Your task to perform on an android device: Search for vegetarian restaurants on Maps Image 0: 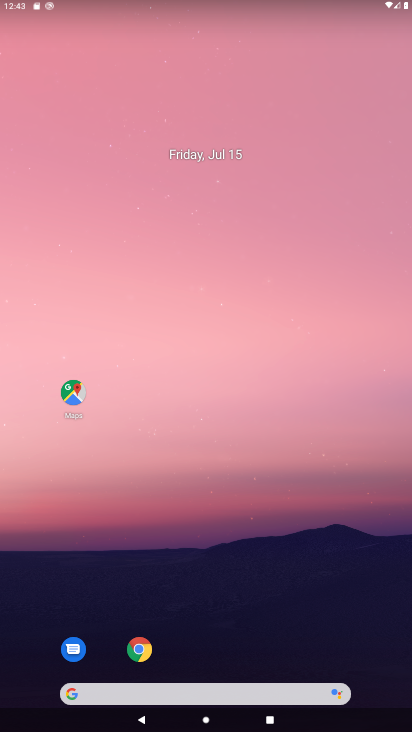
Step 0: drag from (166, 634) to (219, 148)
Your task to perform on an android device: Search for vegetarian restaurants on Maps Image 1: 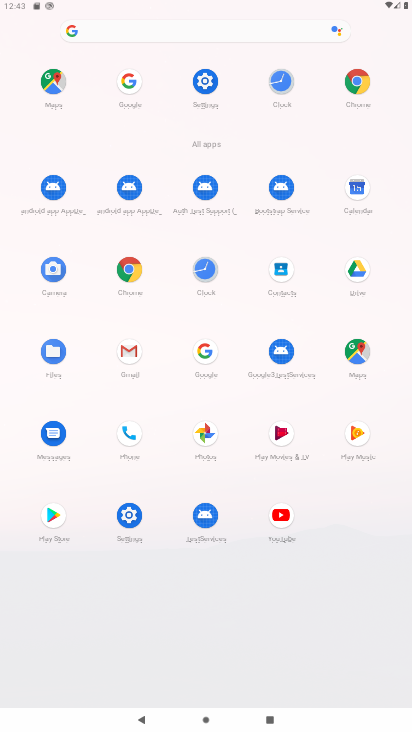
Step 1: click (352, 345)
Your task to perform on an android device: Search for vegetarian restaurants on Maps Image 2: 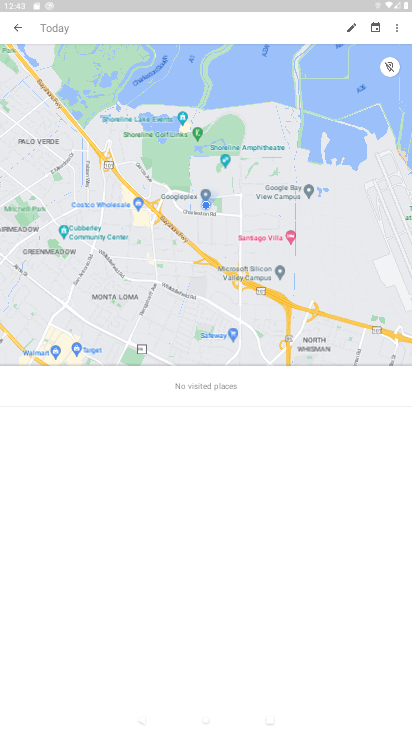
Step 2: click (10, 32)
Your task to perform on an android device: Search for vegetarian restaurants on Maps Image 3: 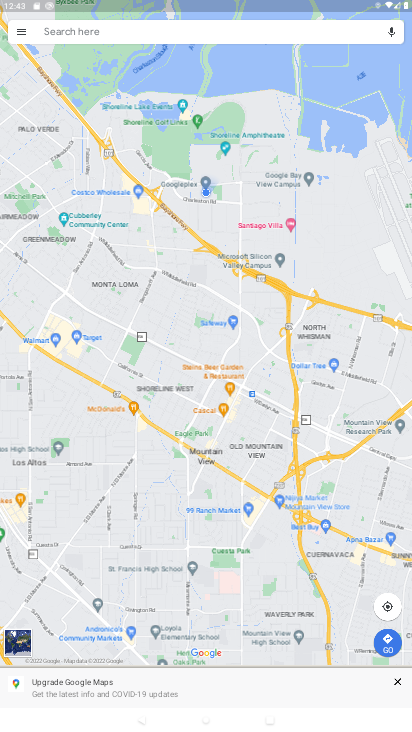
Step 3: click (173, 25)
Your task to perform on an android device: Search for vegetarian restaurants on Maps Image 4: 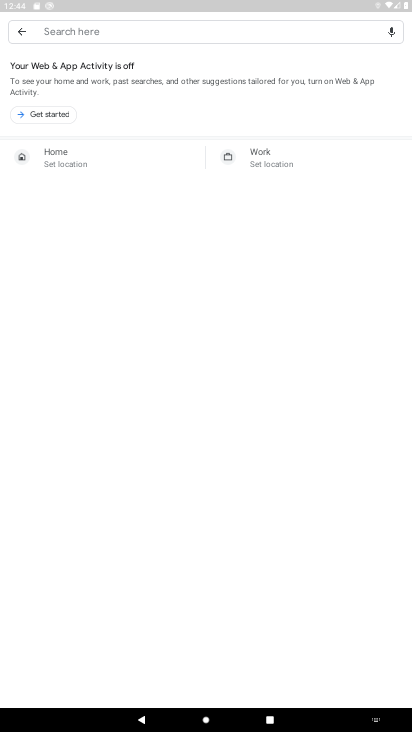
Step 4: click (216, 22)
Your task to perform on an android device: Search for vegetarian restaurants on Maps Image 5: 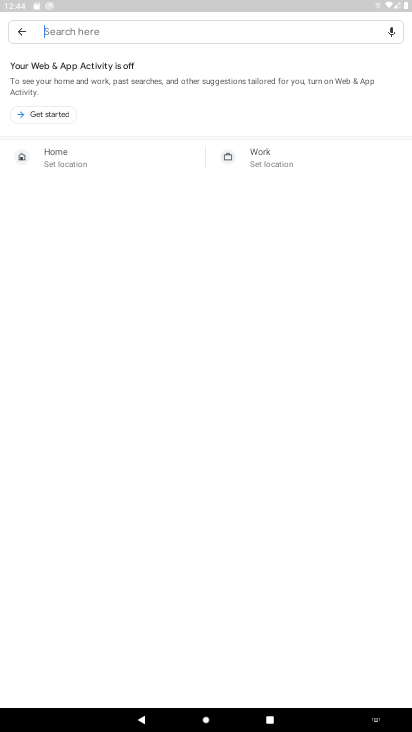
Step 5: type " vegetarian restaurants "
Your task to perform on an android device: Search for vegetarian restaurants on Maps Image 6: 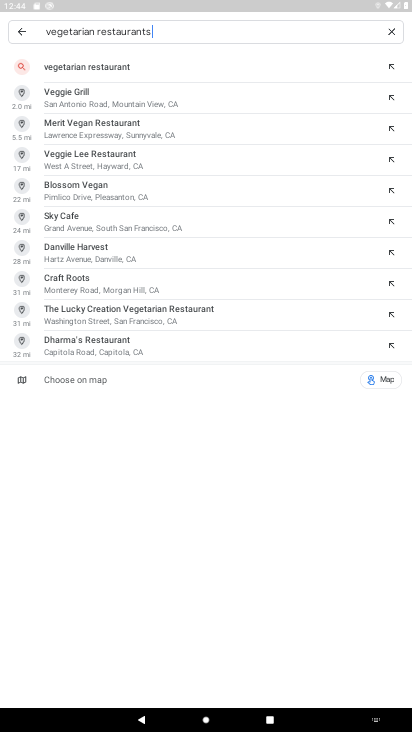
Step 6: click (104, 64)
Your task to perform on an android device: Search for vegetarian restaurants on Maps Image 7: 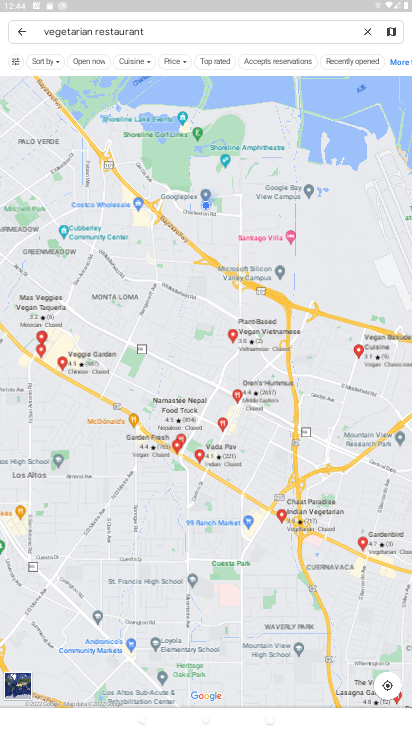
Step 7: task complete